Your task to perform on an android device: change text size in settings app Image 0: 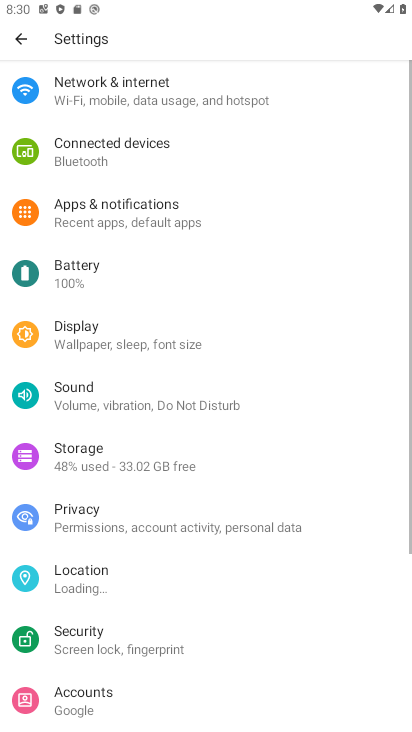
Step 0: press home button
Your task to perform on an android device: change text size in settings app Image 1: 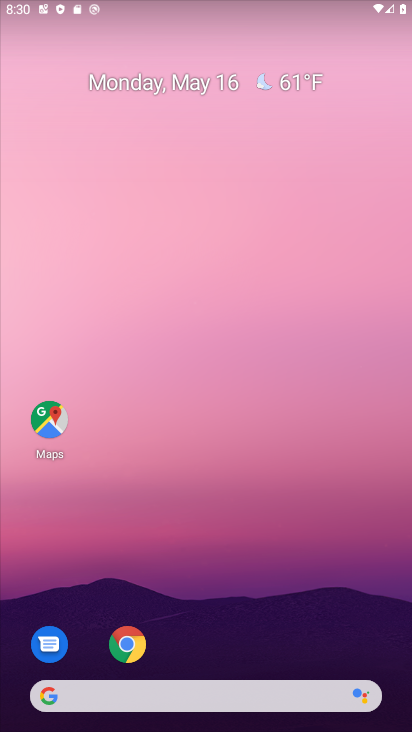
Step 1: drag from (190, 591) to (178, 145)
Your task to perform on an android device: change text size in settings app Image 2: 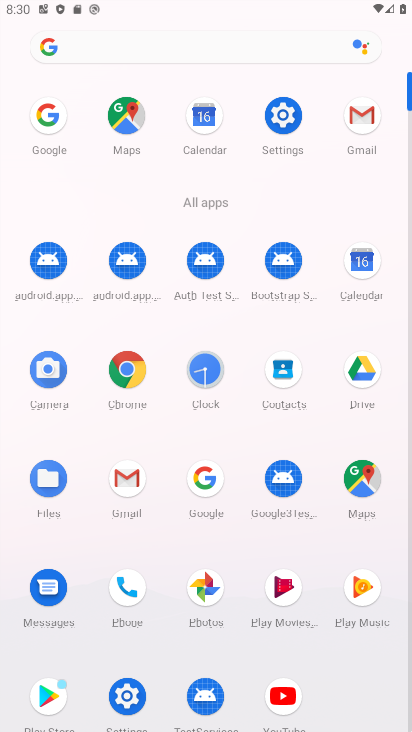
Step 2: click (282, 115)
Your task to perform on an android device: change text size in settings app Image 3: 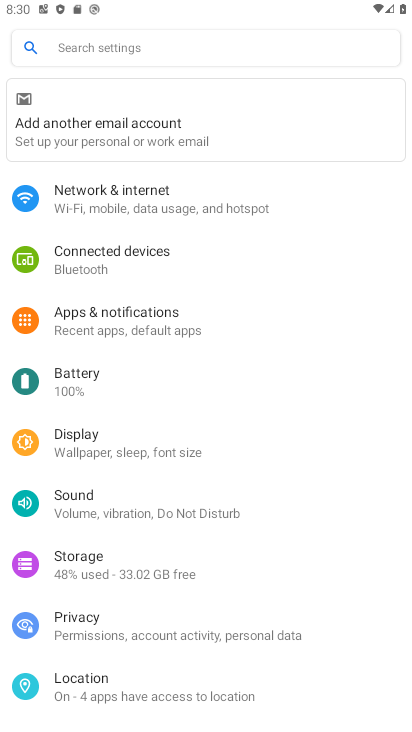
Step 3: drag from (186, 616) to (193, 492)
Your task to perform on an android device: change text size in settings app Image 4: 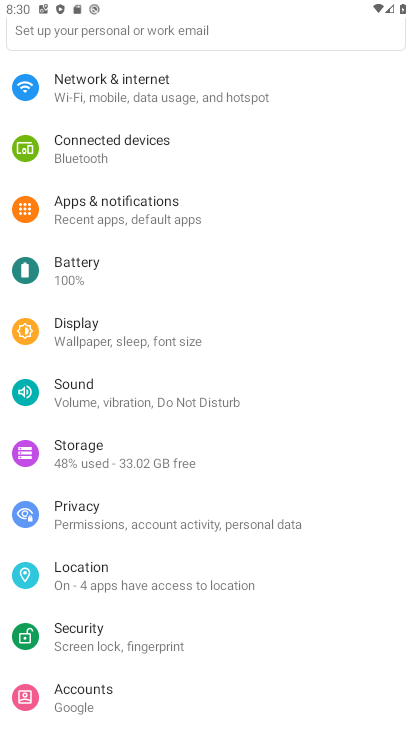
Step 4: click (123, 341)
Your task to perform on an android device: change text size in settings app Image 5: 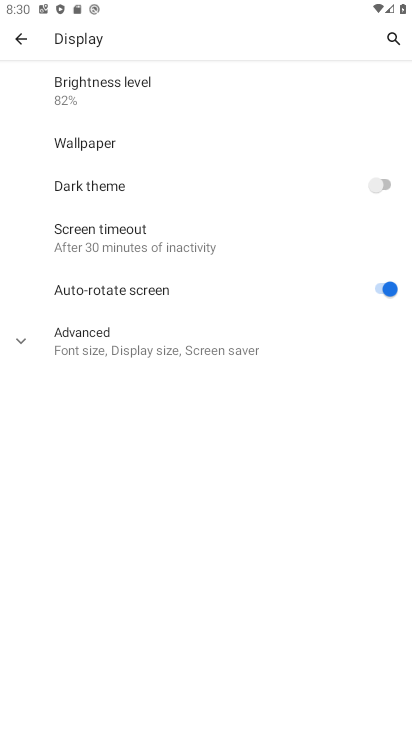
Step 5: click (104, 345)
Your task to perform on an android device: change text size in settings app Image 6: 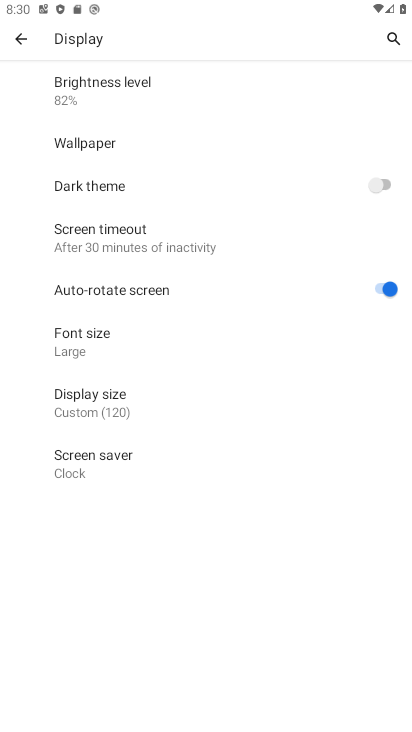
Step 6: click (87, 342)
Your task to perform on an android device: change text size in settings app Image 7: 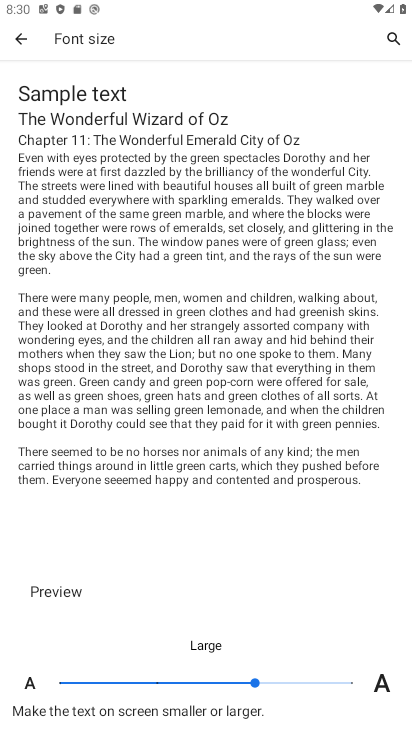
Step 7: task complete